Your task to perform on an android device: turn off location history Image 0: 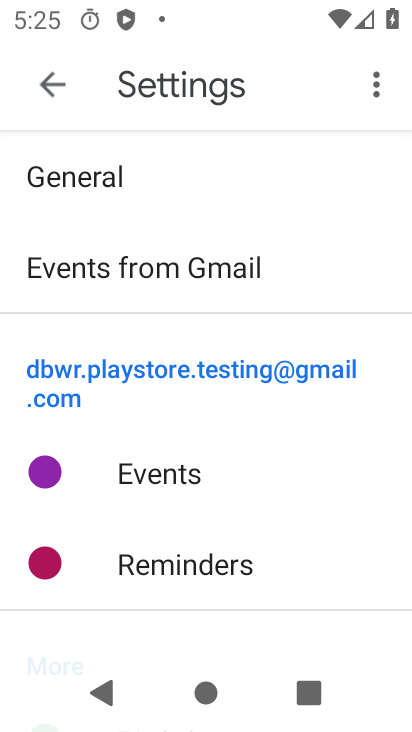
Step 0: press home button
Your task to perform on an android device: turn off location history Image 1: 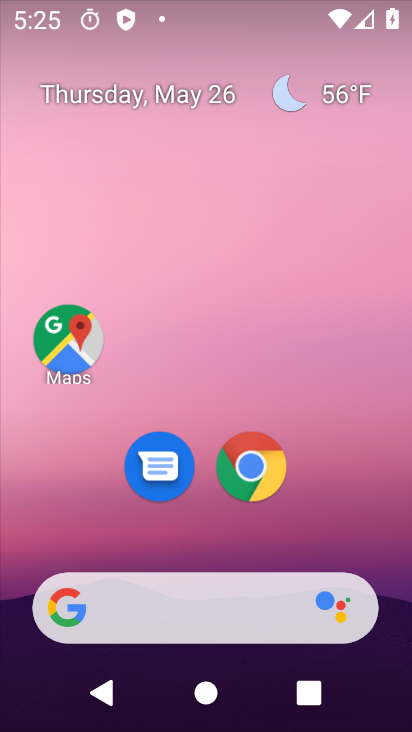
Step 1: click (65, 345)
Your task to perform on an android device: turn off location history Image 2: 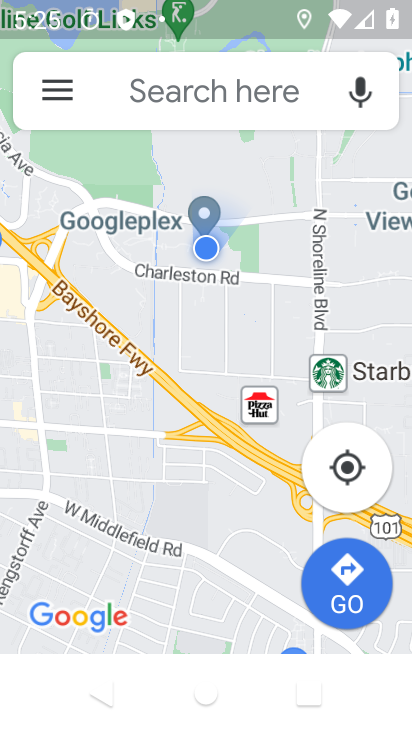
Step 2: click (65, 92)
Your task to perform on an android device: turn off location history Image 3: 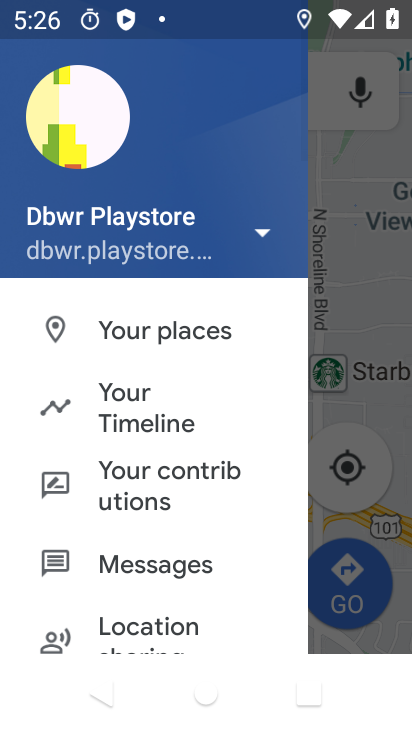
Step 3: click (157, 415)
Your task to perform on an android device: turn off location history Image 4: 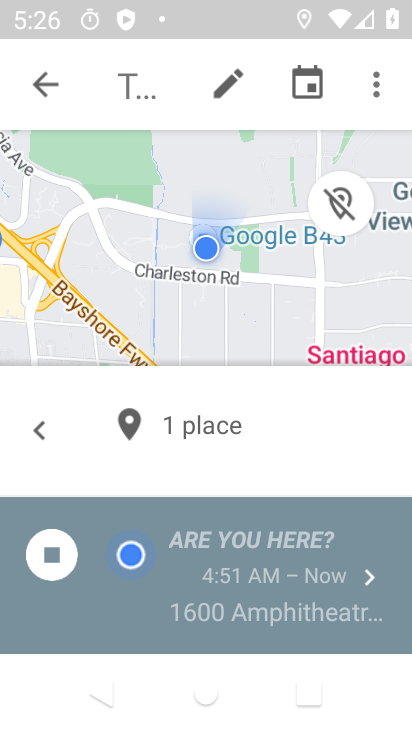
Step 4: click (375, 85)
Your task to perform on an android device: turn off location history Image 5: 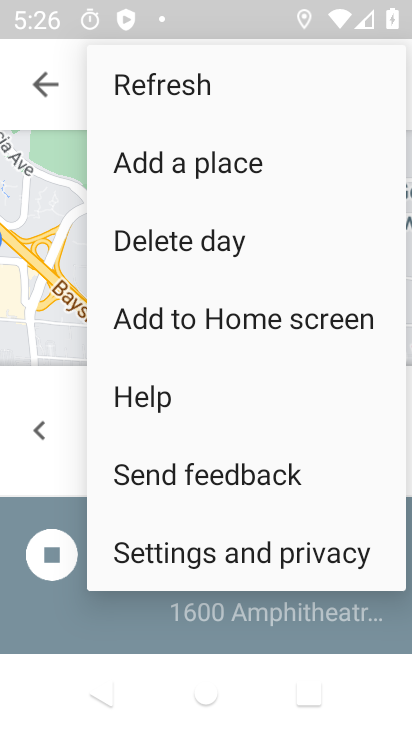
Step 5: click (255, 549)
Your task to perform on an android device: turn off location history Image 6: 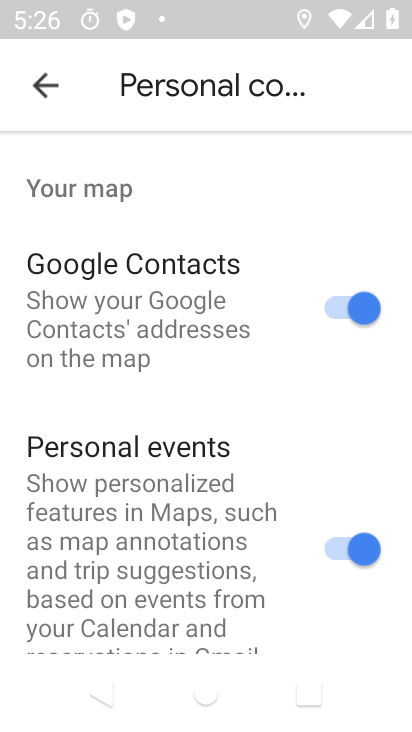
Step 6: drag from (258, 639) to (229, 197)
Your task to perform on an android device: turn off location history Image 7: 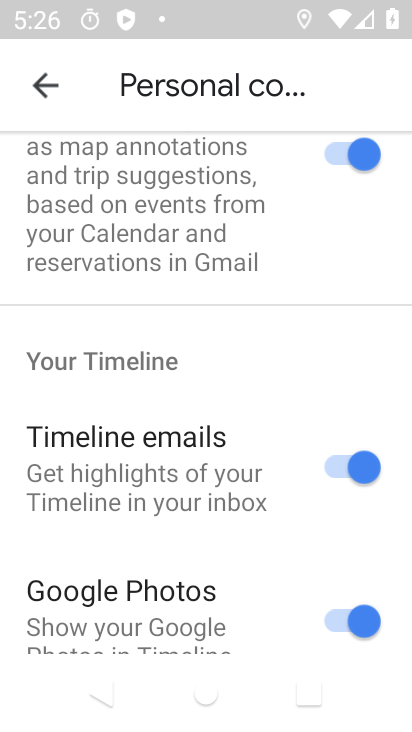
Step 7: drag from (276, 586) to (234, 146)
Your task to perform on an android device: turn off location history Image 8: 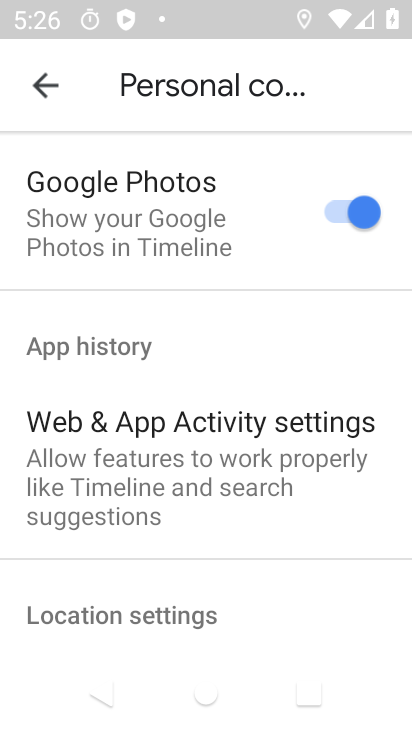
Step 8: drag from (281, 575) to (271, 210)
Your task to perform on an android device: turn off location history Image 9: 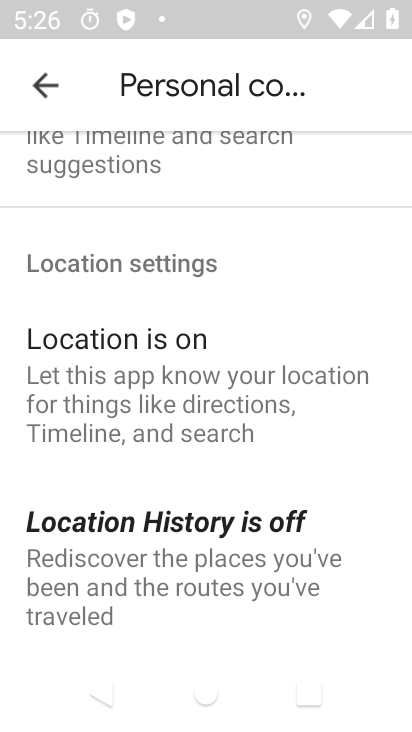
Step 9: click (227, 551)
Your task to perform on an android device: turn off location history Image 10: 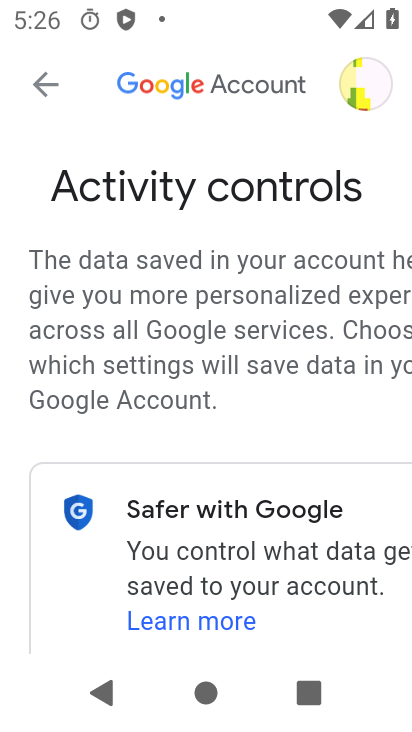
Step 10: task complete